Your task to perform on an android device: toggle translation in the chrome app Image 0: 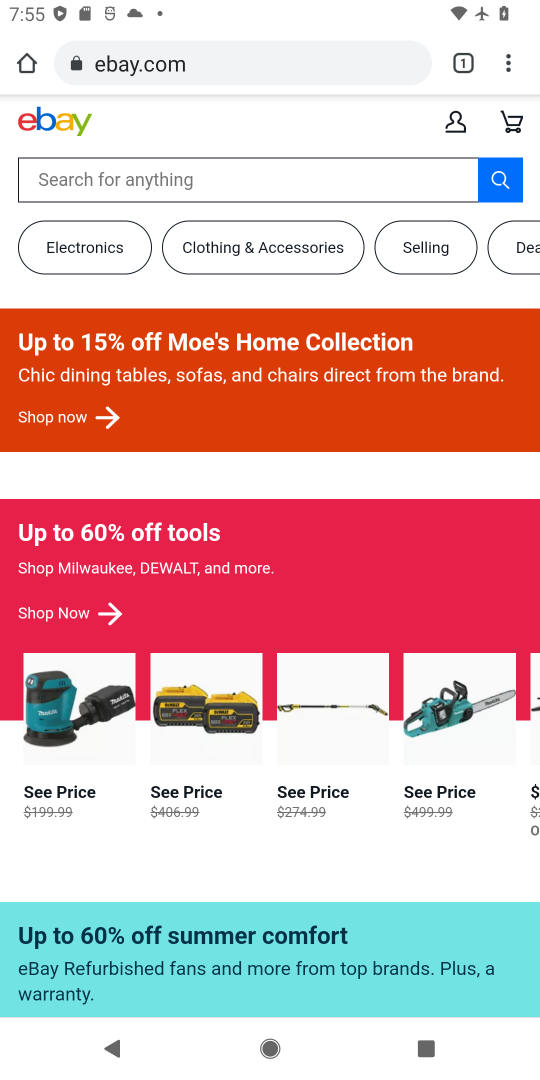
Step 0: press home button
Your task to perform on an android device: toggle translation in the chrome app Image 1: 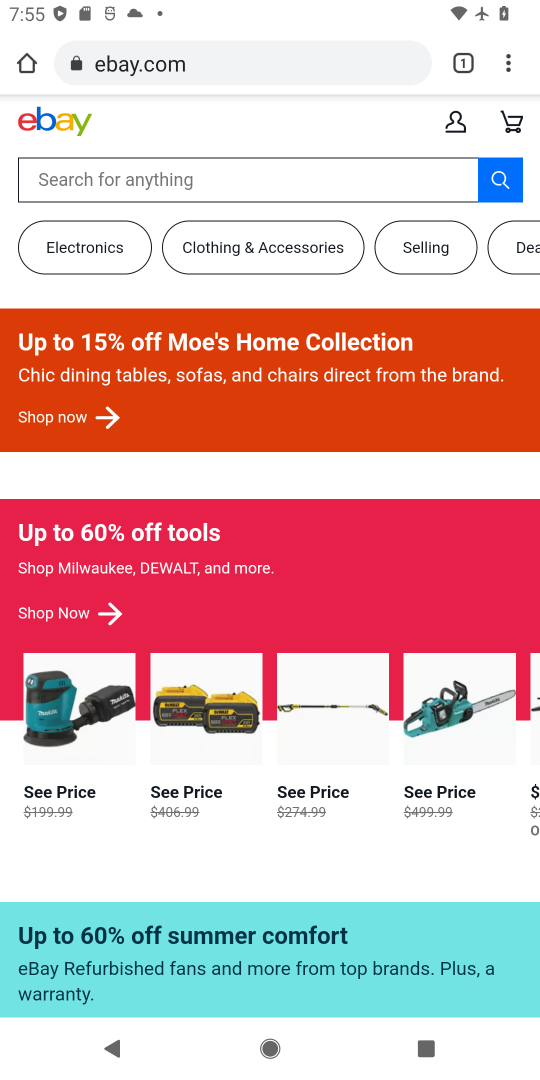
Step 1: press home button
Your task to perform on an android device: toggle translation in the chrome app Image 2: 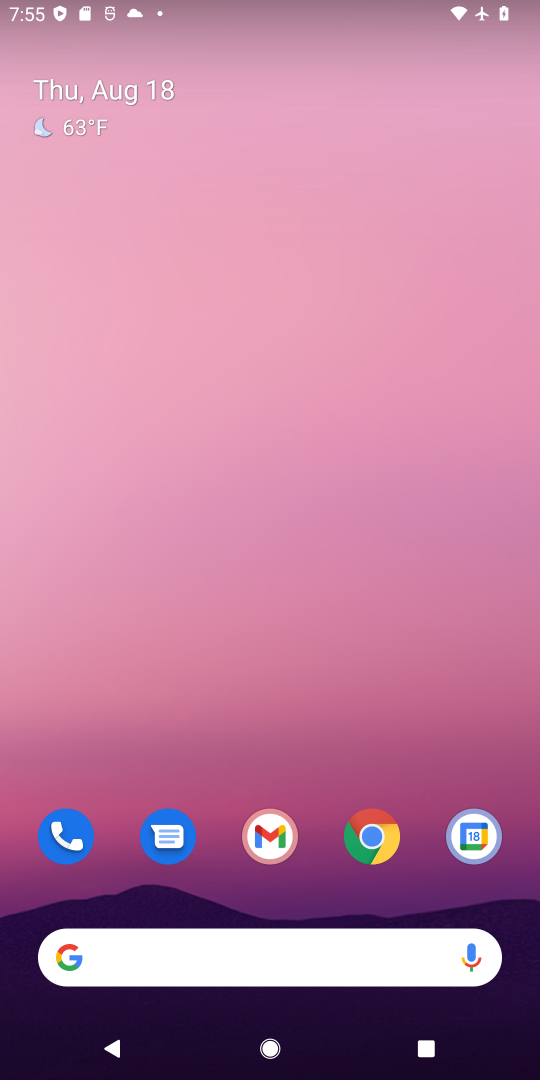
Step 2: drag from (310, 754) to (288, 2)
Your task to perform on an android device: toggle translation in the chrome app Image 3: 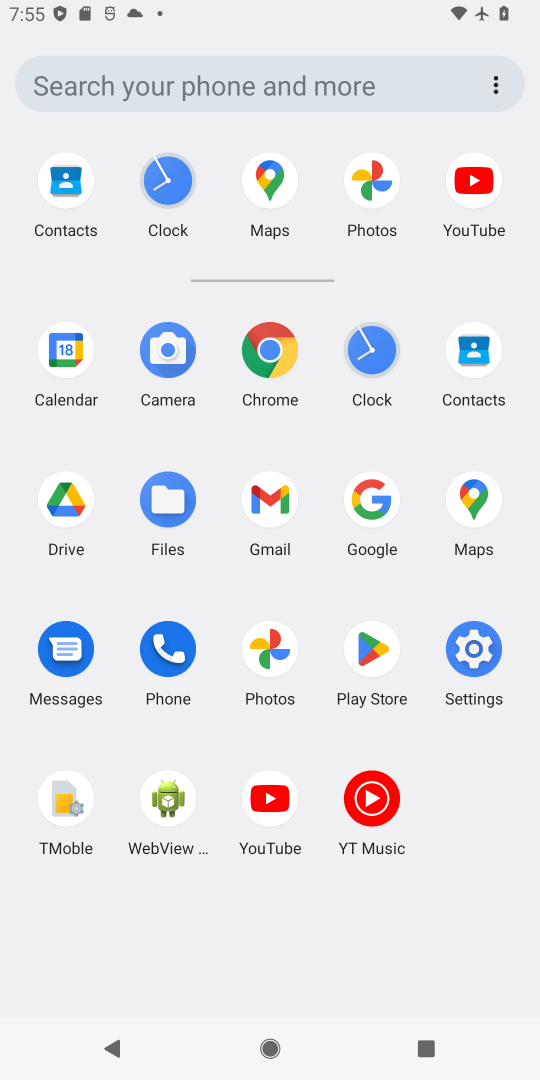
Step 3: click (258, 352)
Your task to perform on an android device: toggle translation in the chrome app Image 4: 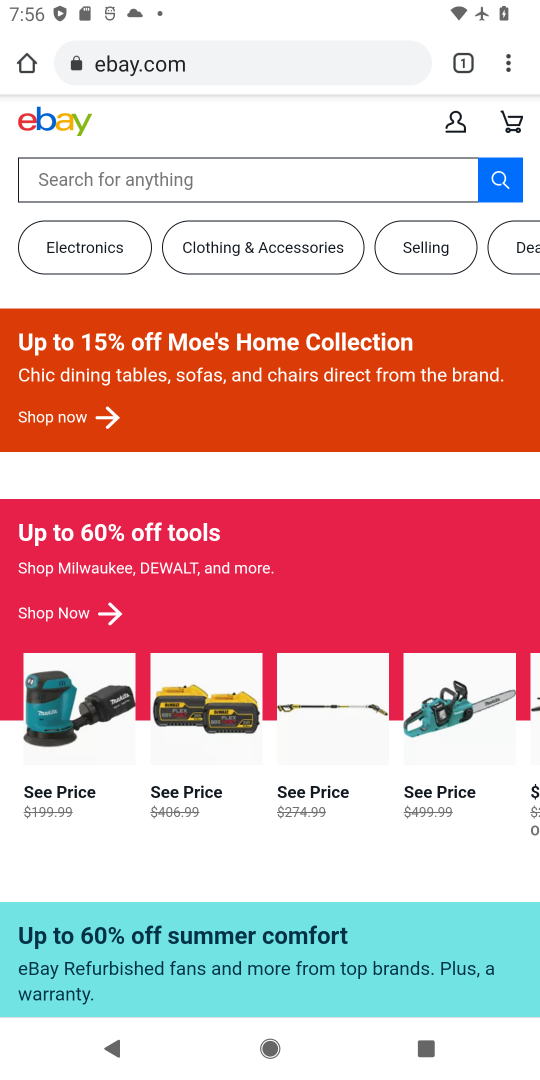
Step 4: drag from (494, 51) to (337, 830)
Your task to perform on an android device: toggle translation in the chrome app Image 5: 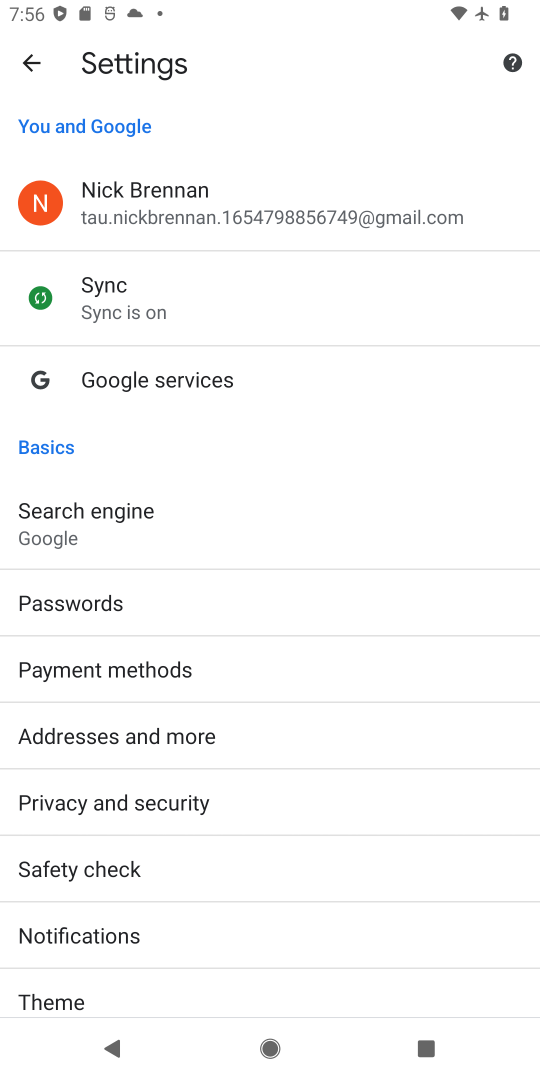
Step 5: drag from (215, 888) to (183, 167)
Your task to perform on an android device: toggle translation in the chrome app Image 6: 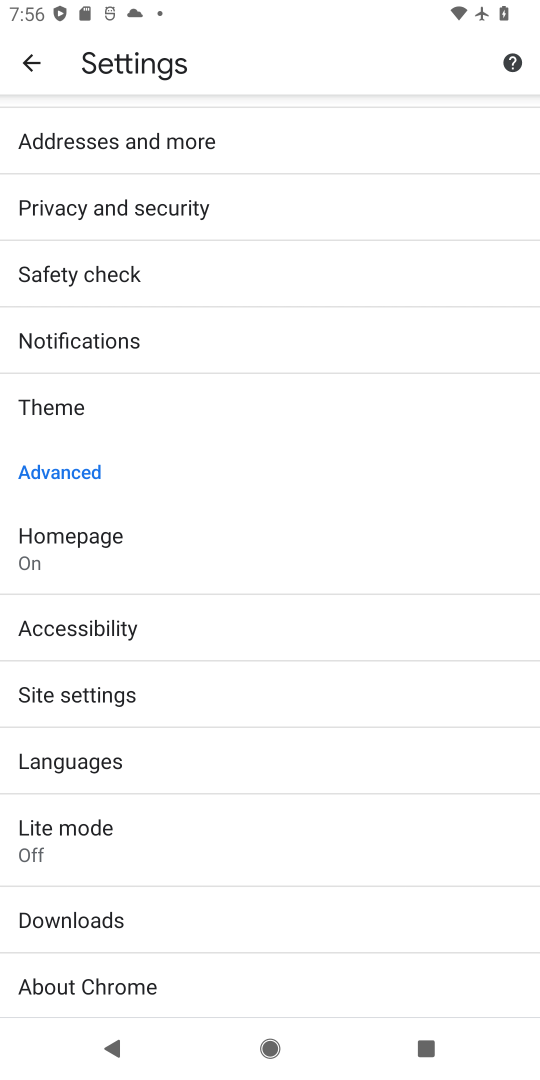
Step 6: click (94, 772)
Your task to perform on an android device: toggle translation in the chrome app Image 7: 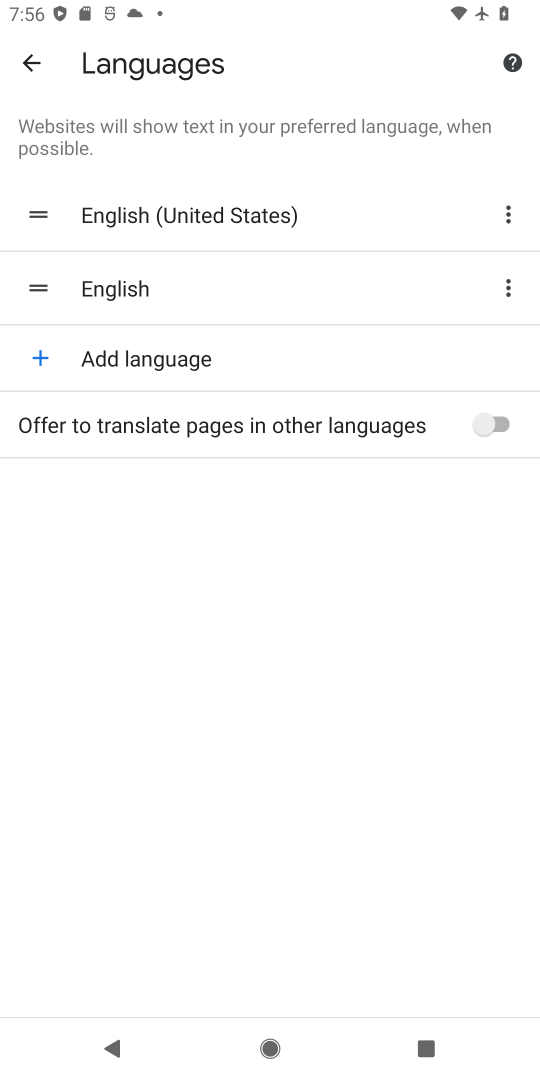
Step 7: click (488, 410)
Your task to perform on an android device: toggle translation in the chrome app Image 8: 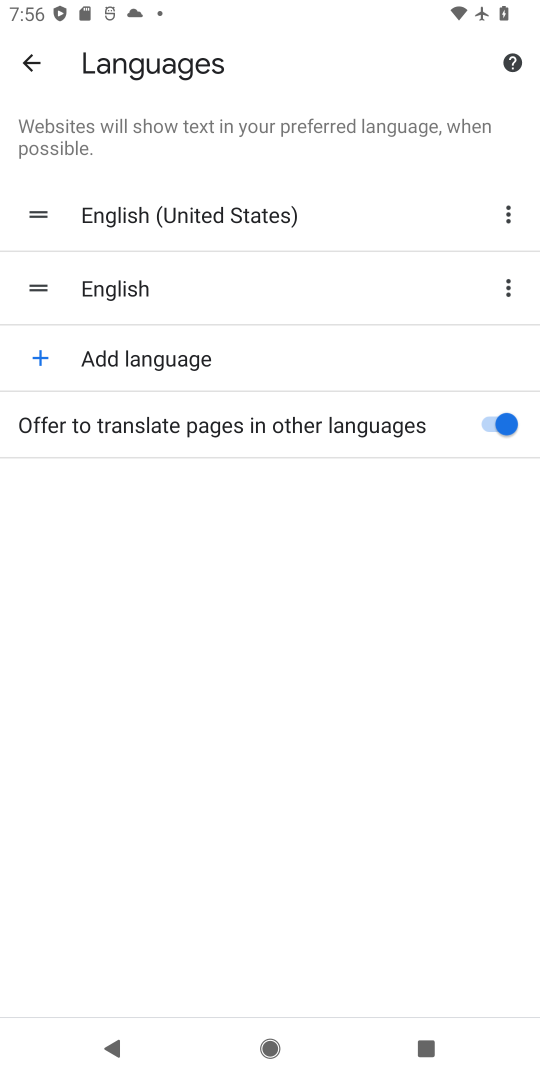
Step 8: task complete